Your task to perform on an android device: clear history in the chrome app Image 0: 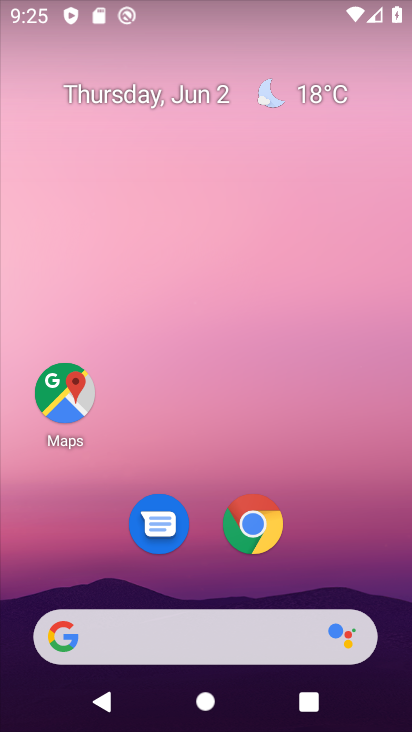
Step 0: click (255, 519)
Your task to perform on an android device: clear history in the chrome app Image 1: 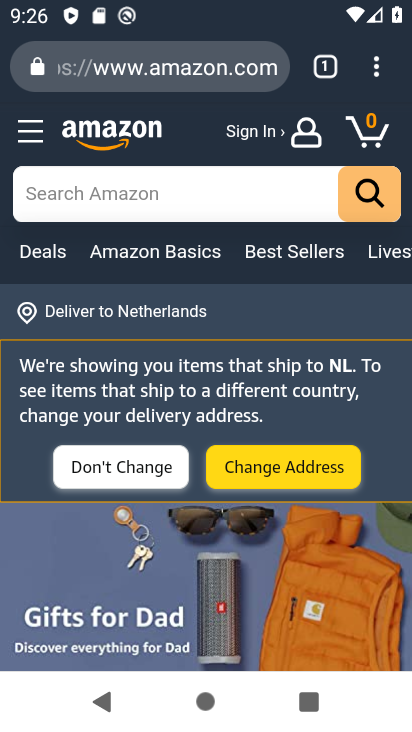
Step 1: click (375, 73)
Your task to perform on an android device: clear history in the chrome app Image 2: 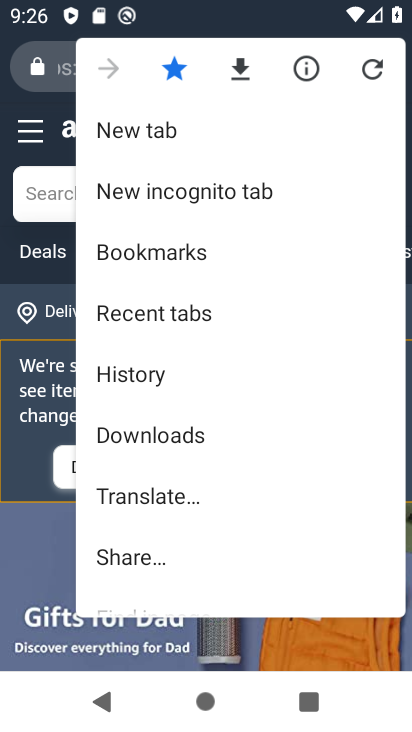
Step 2: click (167, 371)
Your task to perform on an android device: clear history in the chrome app Image 3: 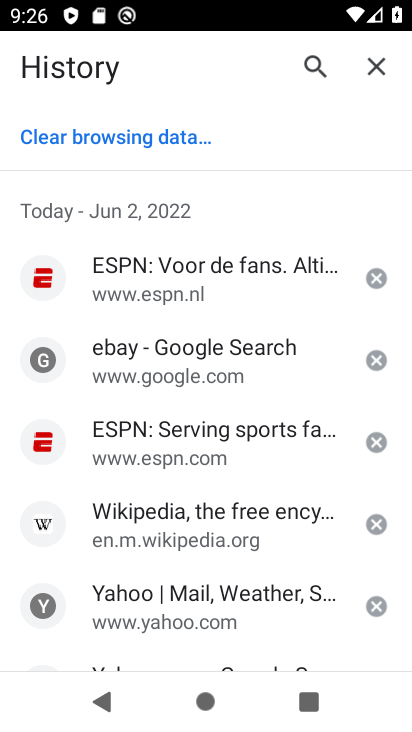
Step 3: click (184, 131)
Your task to perform on an android device: clear history in the chrome app Image 4: 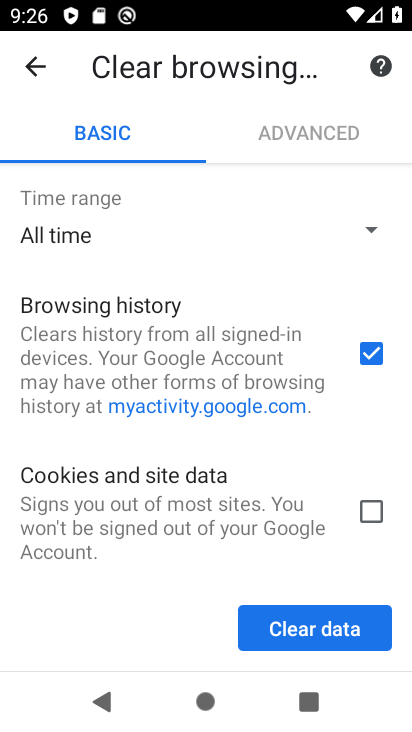
Step 4: click (341, 624)
Your task to perform on an android device: clear history in the chrome app Image 5: 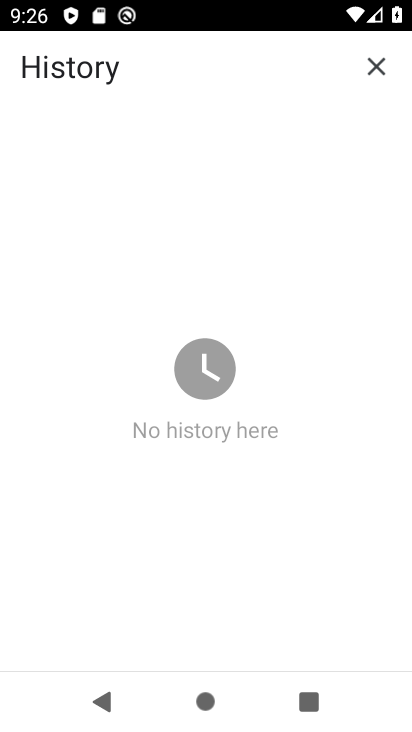
Step 5: task complete